Your task to perform on an android device: Open Chrome and go to the settings page Image 0: 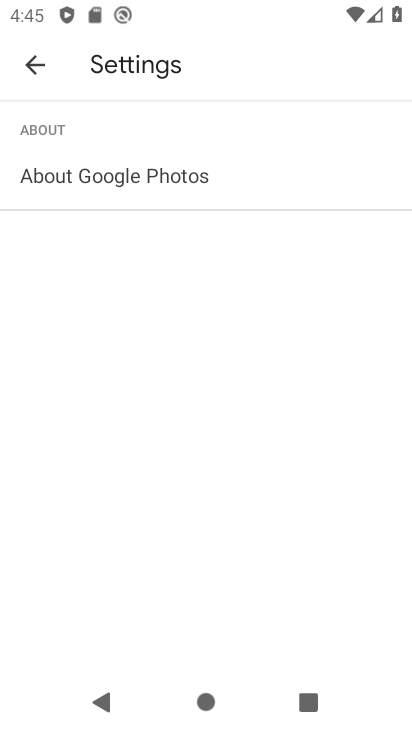
Step 0: press home button
Your task to perform on an android device: Open Chrome and go to the settings page Image 1: 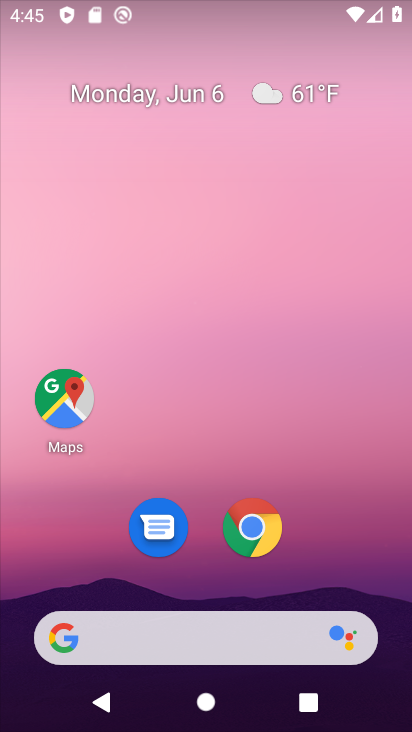
Step 1: drag from (253, 579) to (349, 82)
Your task to perform on an android device: Open Chrome and go to the settings page Image 2: 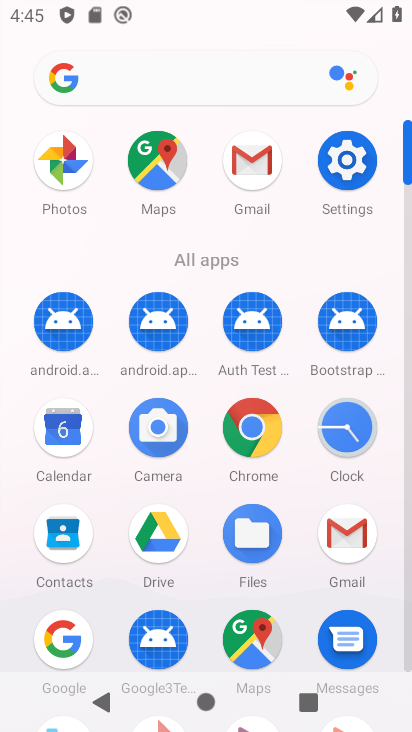
Step 2: click (256, 424)
Your task to perform on an android device: Open Chrome and go to the settings page Image 3: 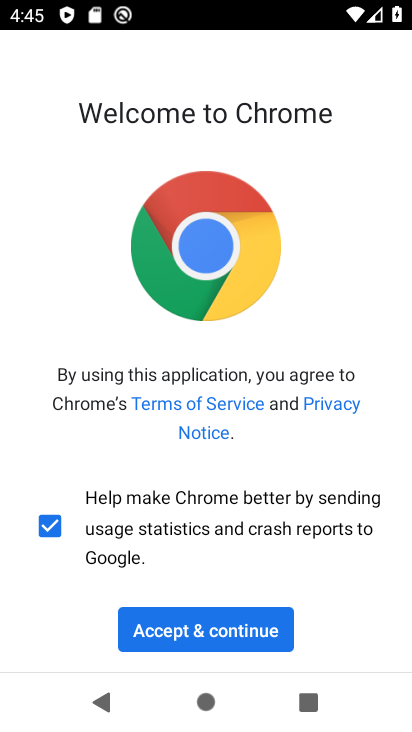
Step 3: click (256, 637)
Your task to perform on an android device: Open Chrome and go to the settings page Image 4: 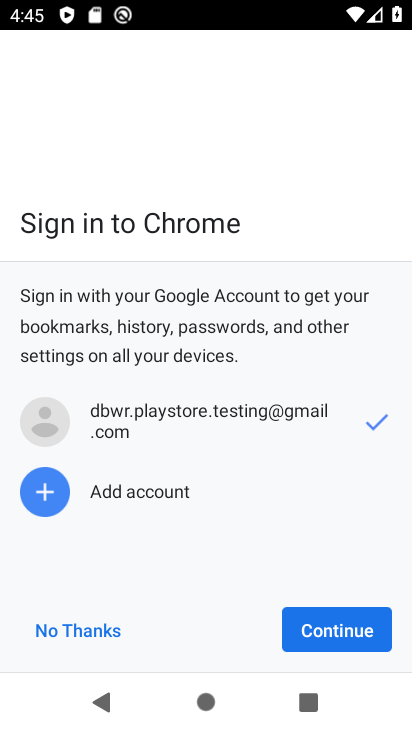
Step 4: click (350, 637)
Your task to perform on an android device: Open Chrome and go to the settings page Image 5: 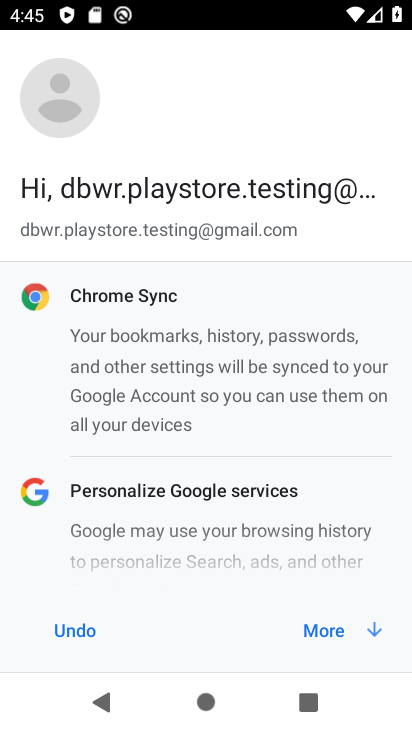
Step 5: click (349, 636)
Your task to perform on an android device: Open Chrome and go to the settings page Image 6: 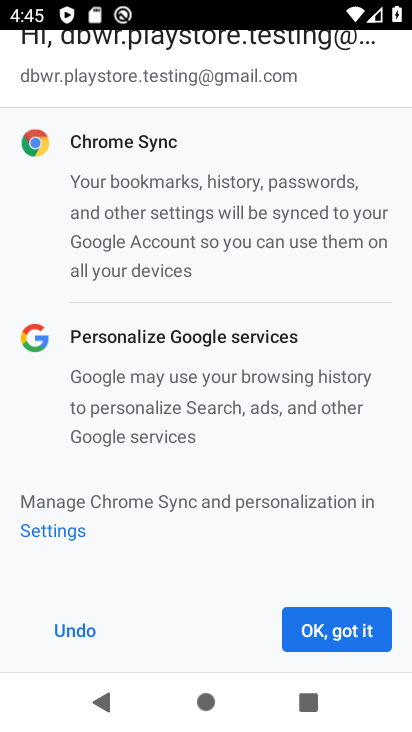
Step 6: click (349, 636)
Your task to perform on an android device: Open Chrome and go to the settings page Image 7: 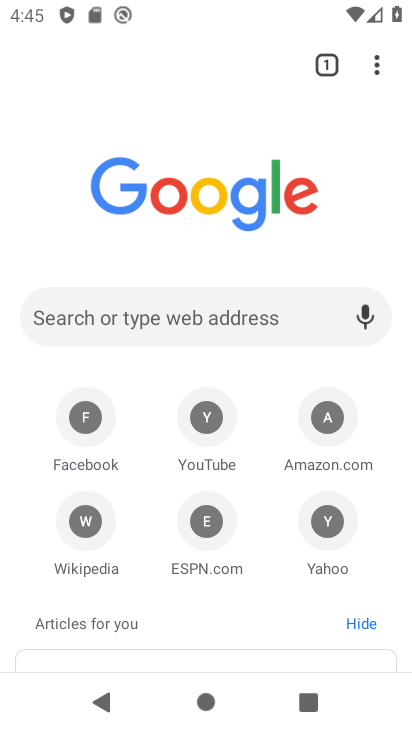
Step 7: task complete